Your task to perform on an android device: check android version Image 0: 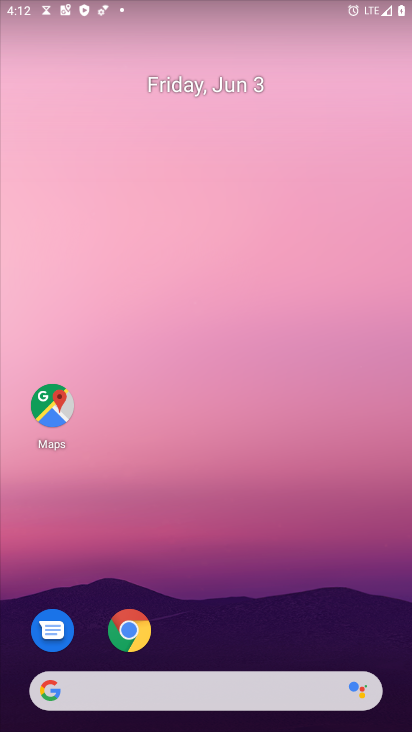
Step 0: drag from (189, 367) to (140, 27)
Your task to perform on an android device: check android version Image 1: 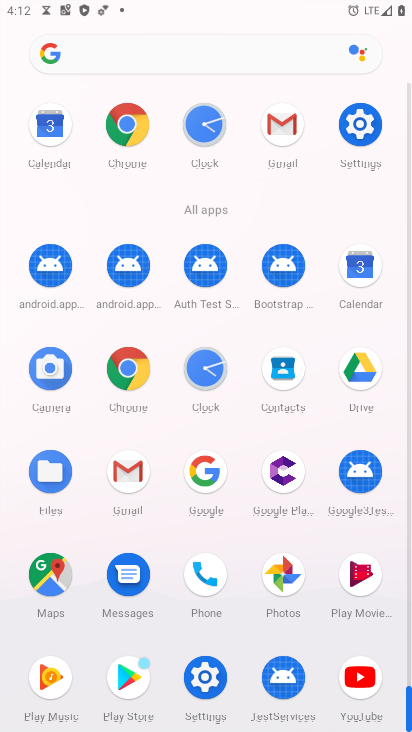
Step 1: click (203, 676)
Your task to perform on an android device: check android version Image 2: 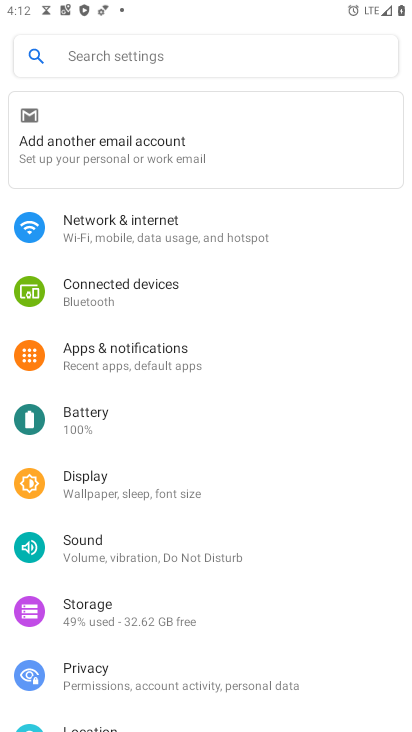
Step 2: drag from (253, 360) to (258, 220)
Your task to perform on an android device: check android version Image 3: 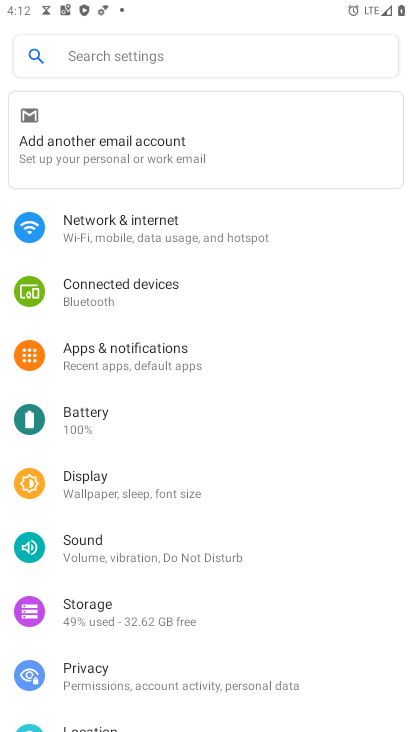
Step 3: click (240, 232)
Your task to perform on an android device: check android version Image 4: 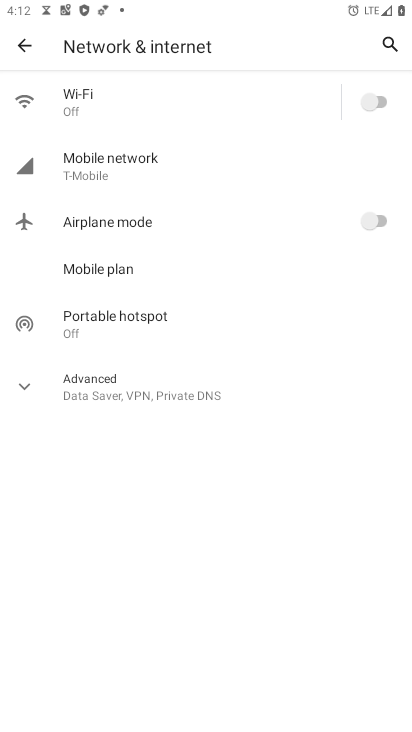
Step 4: click (18, 53)
Your task to perform on an android device: check android version Image 5: 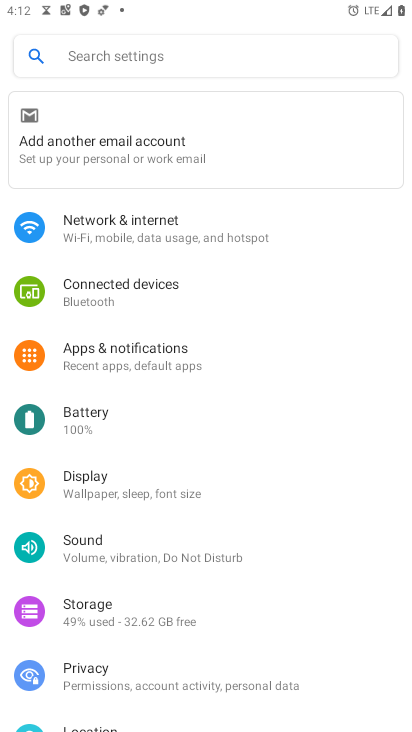
Step 5: drag from (252, 418) to (256, 165)
Your task to perform on an android device: check android version Image 6: 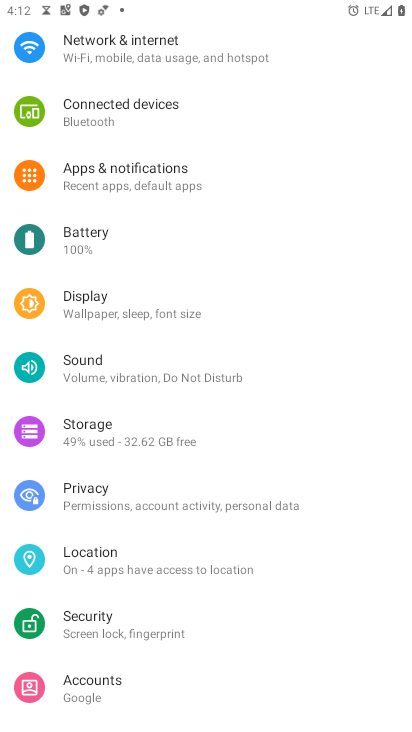
Step 6: drag from (222, 604) to (220, 145)
Your task to perform on an android device: check android version Image 7: 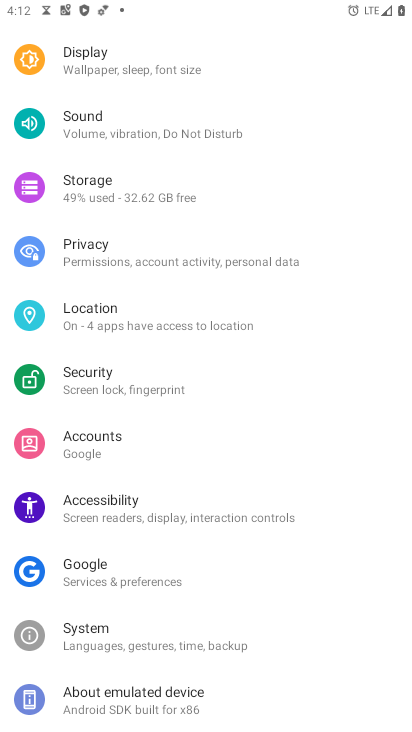
Step 7: click (158, 702)
Your task to perform on an android device: check android version Image 8: 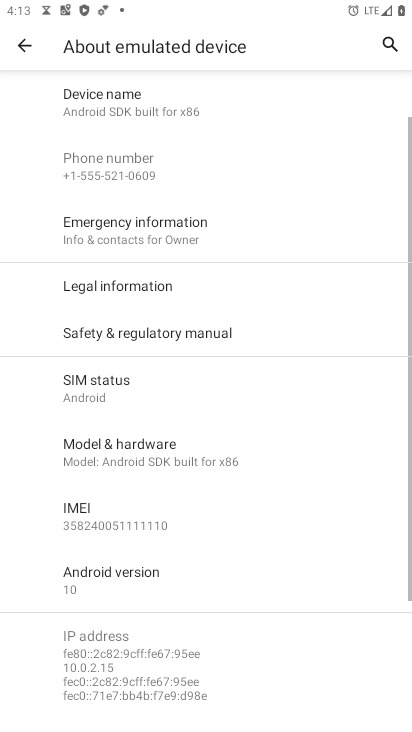
Step 8: task complete